Your task to perform on an android device: turn on the 12-hour format for clock Image 0: 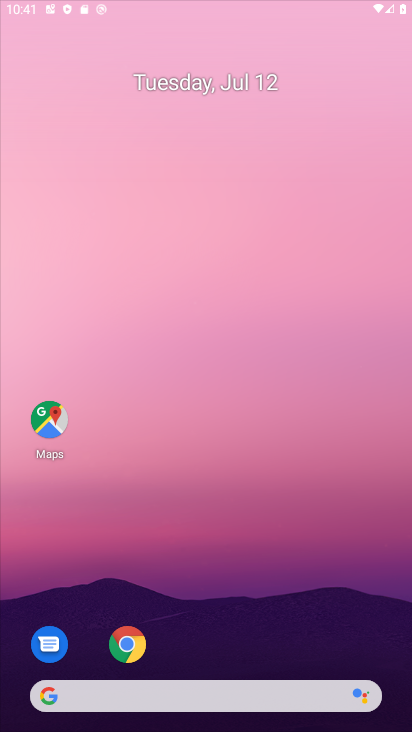
Step 0: drag from (222, 615) to (271, 79)
Your task to perform on an android device: turn on the 12-hour format for clock Image 1: 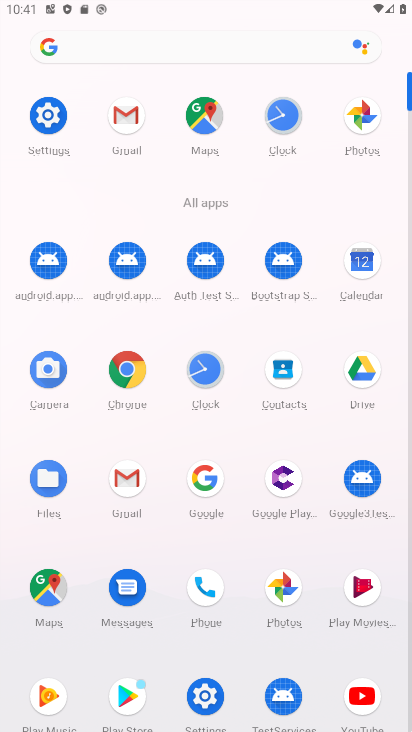
Step 1: press home button
Your task to perform on an android device: turn on the 12-hour format for clock Image 2: 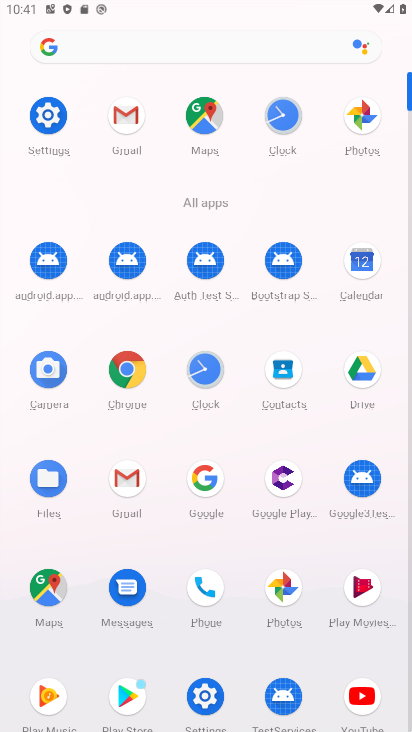
Step 2: press home button
Your task to perform on an android device: turn on the 12-hour format for clock Image 3: 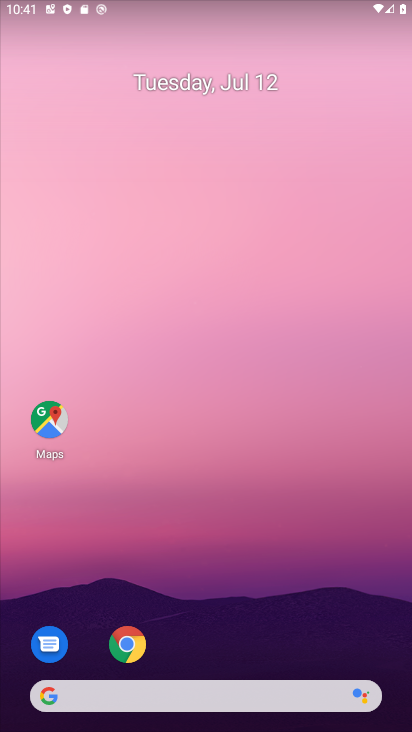
Step 3: press home button
Your task to perform on an android device: turn on the 12-hour format for clock Image 4: 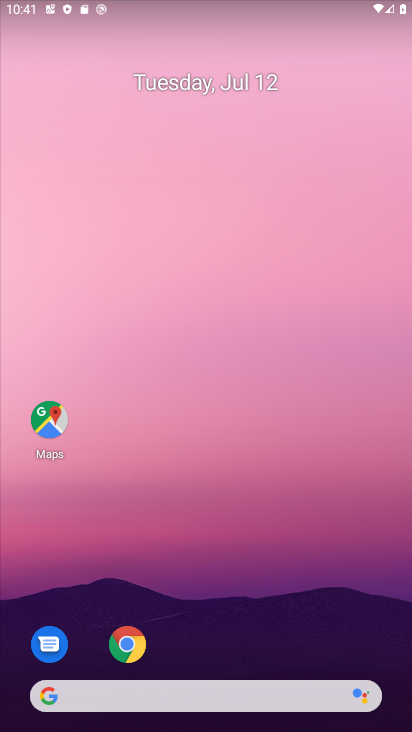
Step 4: drag from (243, 641) to (289, 205)
Your task to perform on an android device: turn on the 12-hour format for clock Image 5: 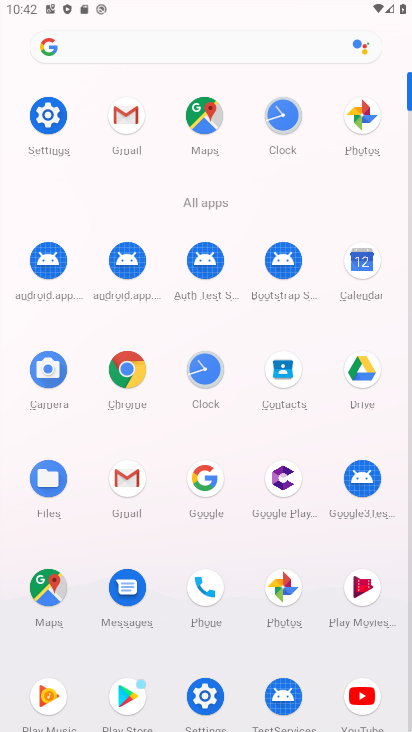
Step 5: click (198, 362)
Your task to perform on an android device: turn on the 12-hour format for clock Image 6: 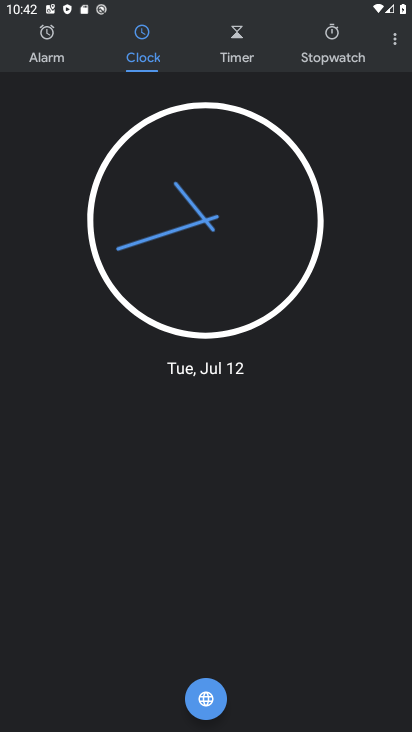
Step 6: click (399, 38)
Your task to perform on an android device: turn on the 12-hour format for clock Image 7: 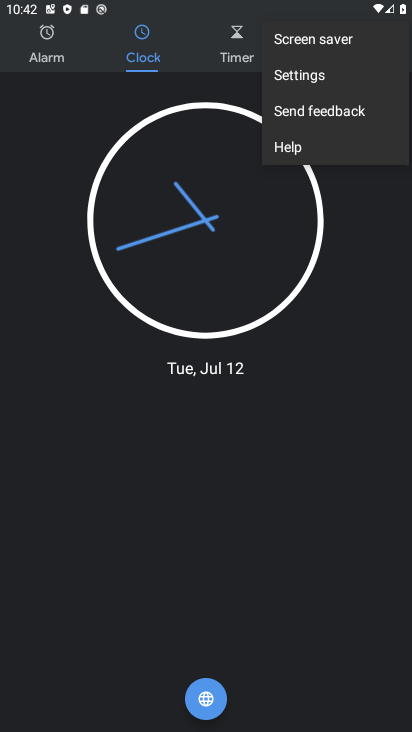
Step 7: click (333, 74)
Your task to perform on an android device: turn on the 12-hour format for clock Image 8: 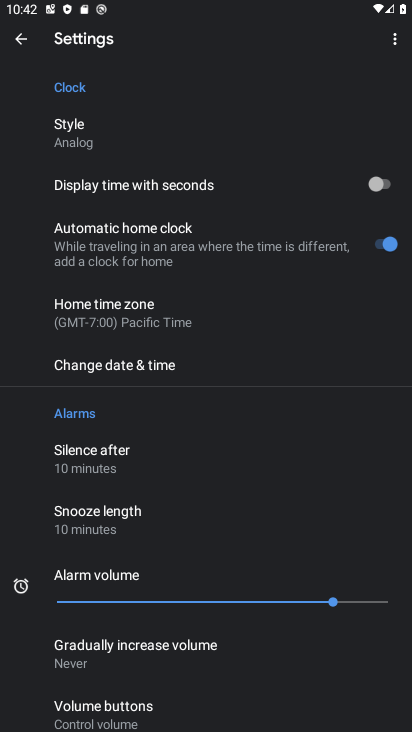
Step 8: drag from (222, 646) to (241, 286)
Your task to perform on an android device: turn on the 12-hour format for clock Image 9: 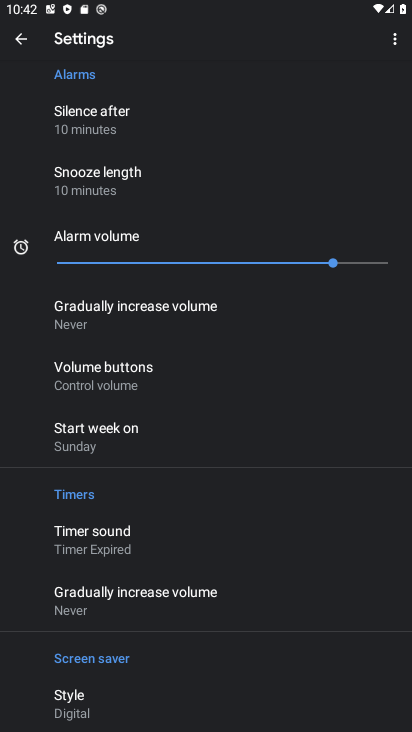
Step 9: drag from (182, 144) to (202, 658)
Your task to perform on an android device: turn on the 12-hour format for clock Image 10: 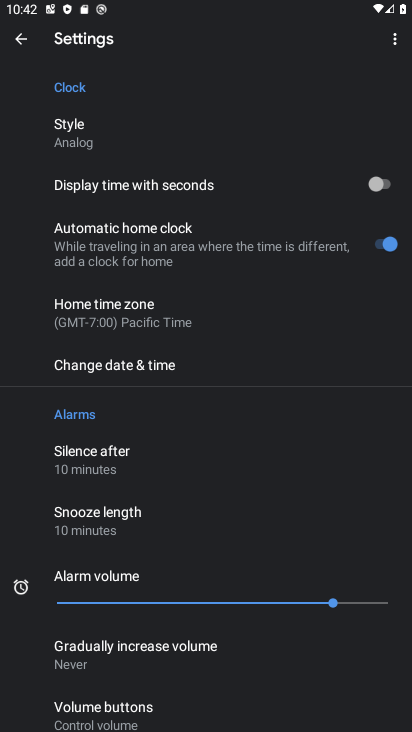
Step 10: click (206, 362)
Your task to perform on an android device: turn on the 12-hour format for clock Image 11: 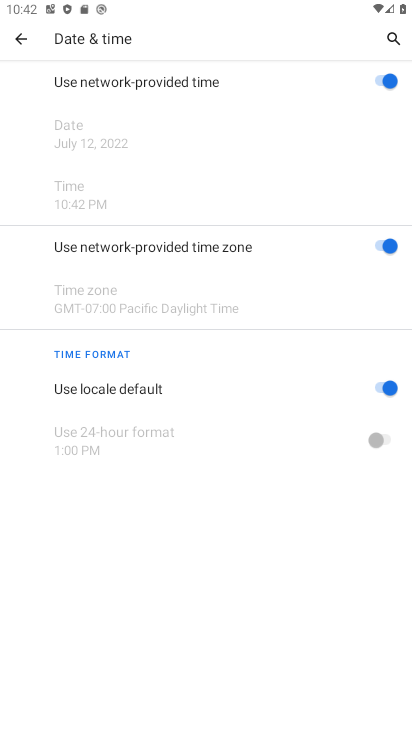
Step 11: task complete